Your task to perform on an android device: empty trash in the gmail app Image 0: 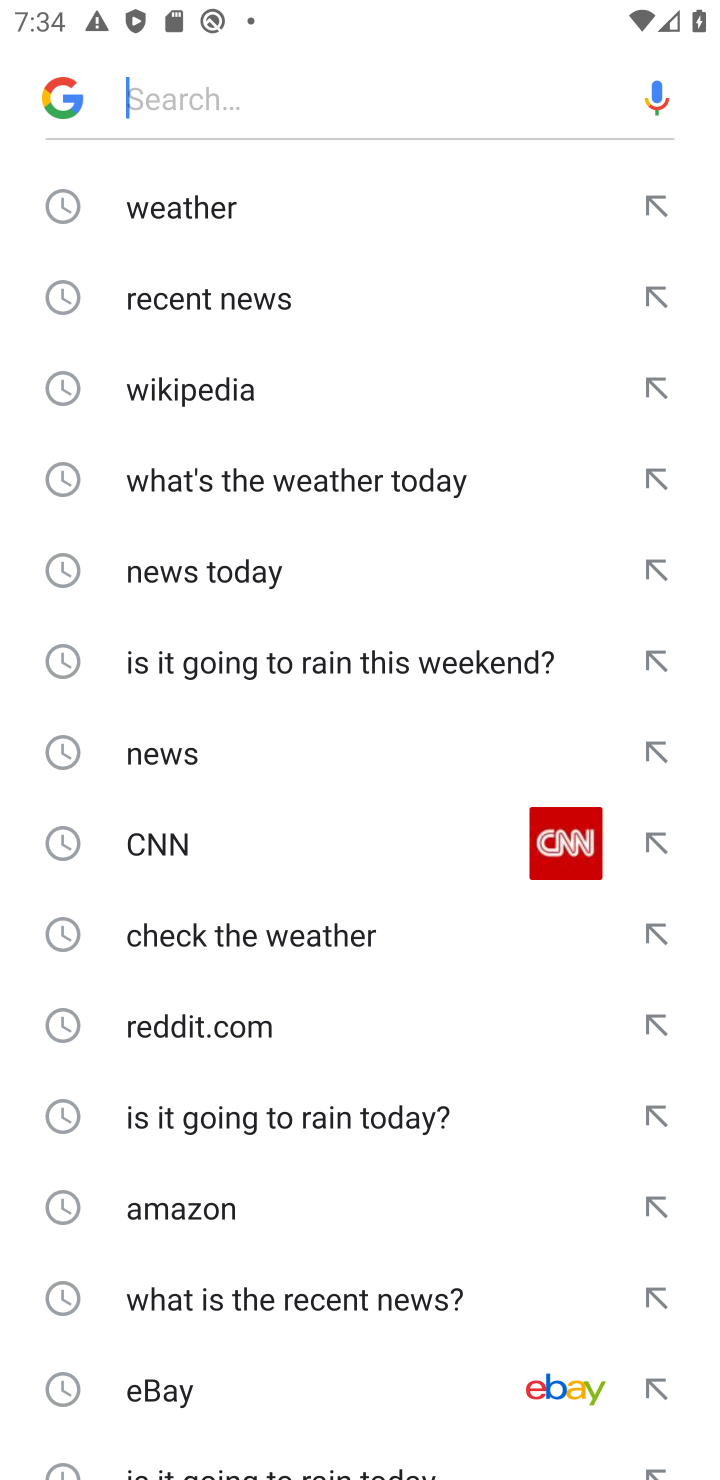
Step 0: press home button
Your task to perform on an android device: empty trash in the gmail app Image 1: 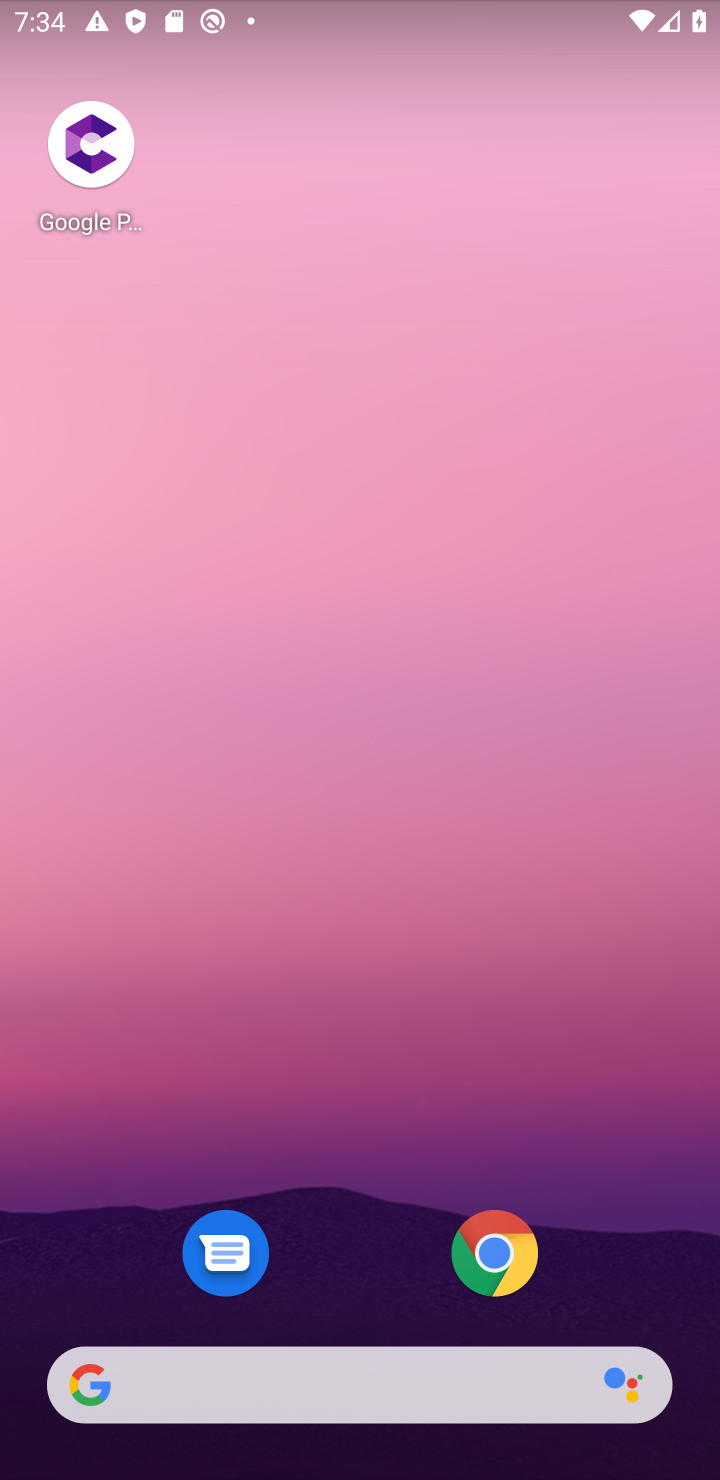
Step 1: drag from (346, 1375) to (513, 235)
Your task to perform on an android device: empty trash in the gmail app Image 2: 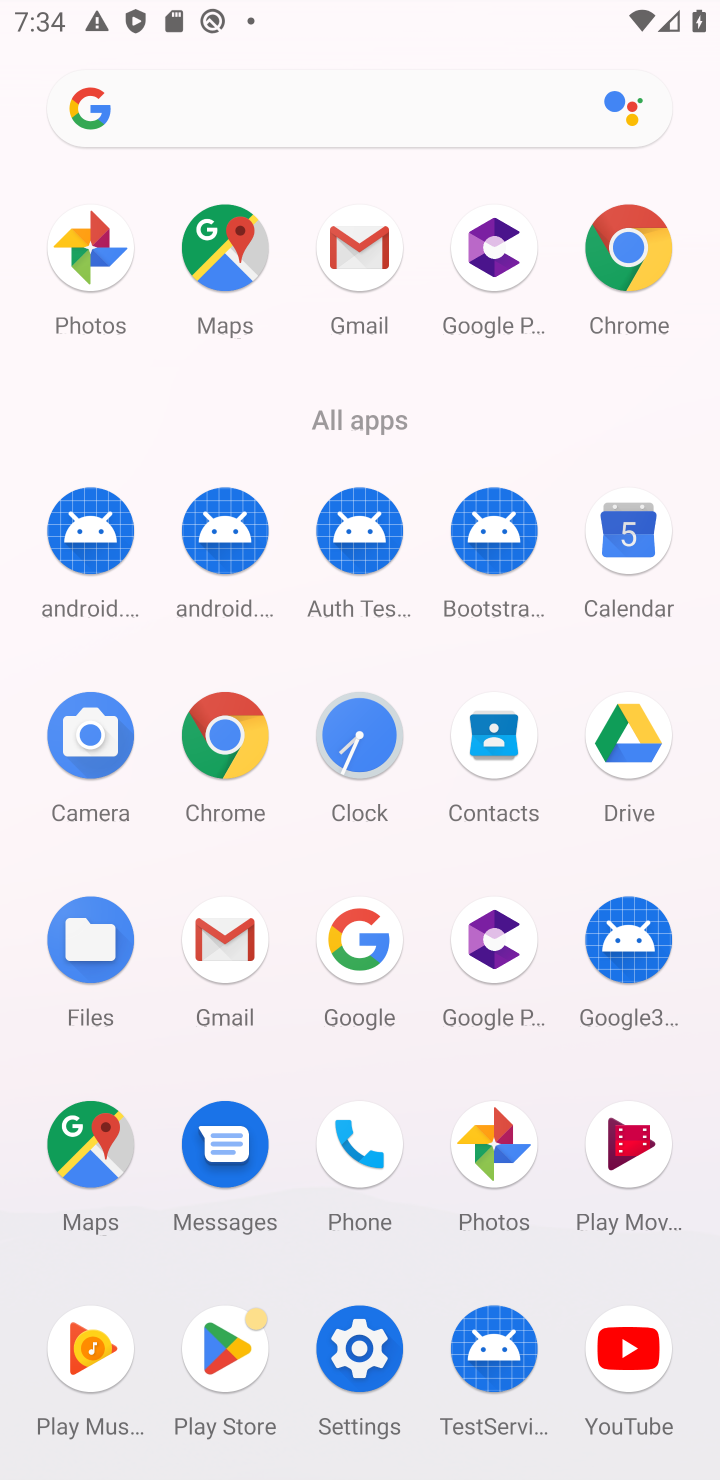
Step 2: click (371, 251)
Your task to perform on an android device: empty trash in the gmail app Image 3: 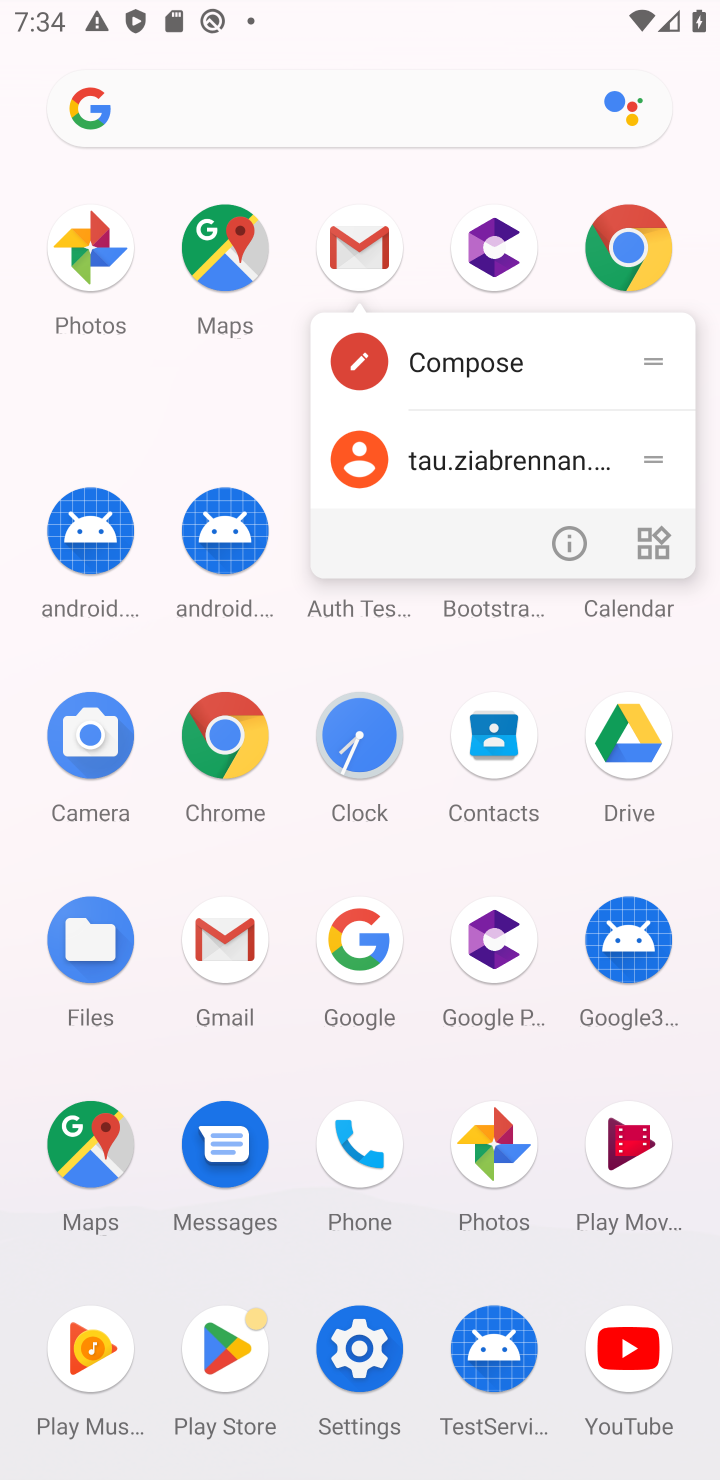
Step 3: click (360, 248)
Your task to perform on an android device: empty trash in the gmail app Image 4: 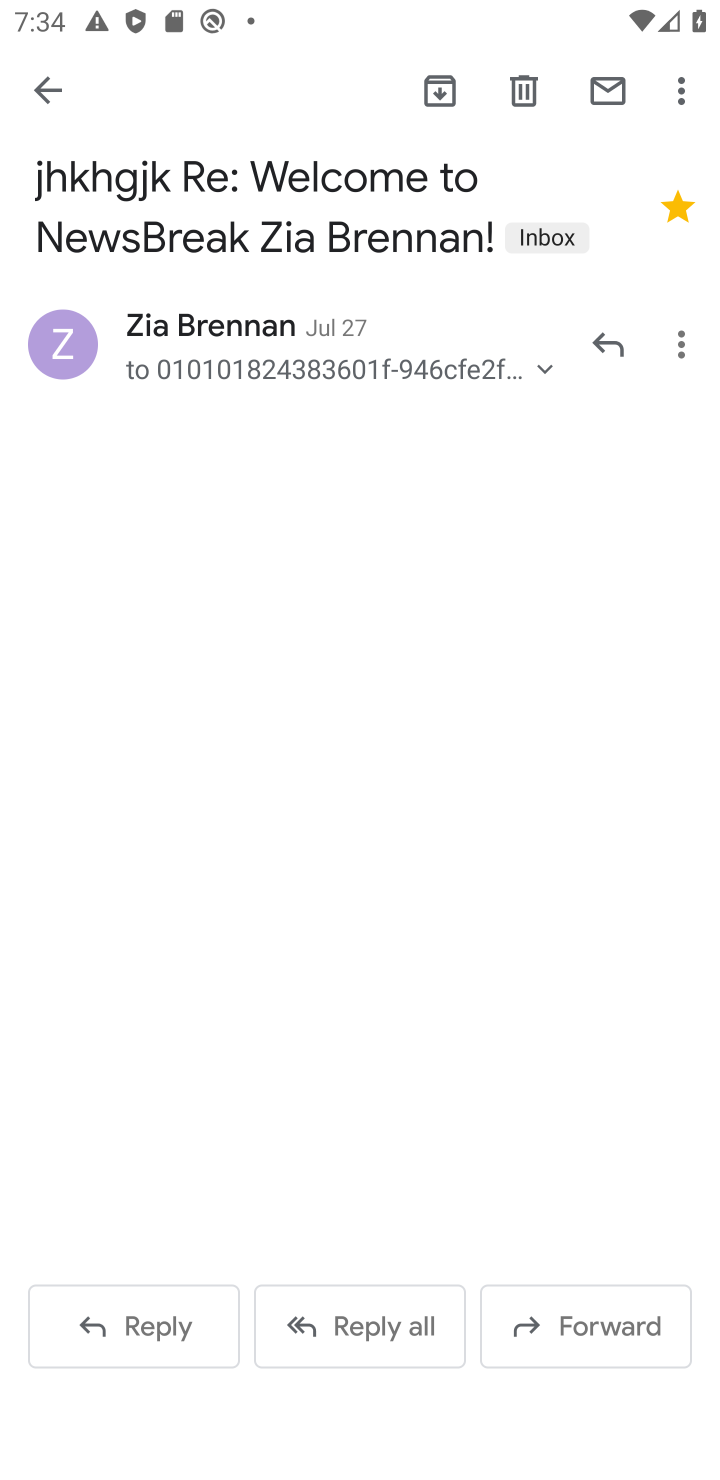
Step 4: click (53, 86)
Your task to perform on an android device: empty trash in the gmail app Image 5: 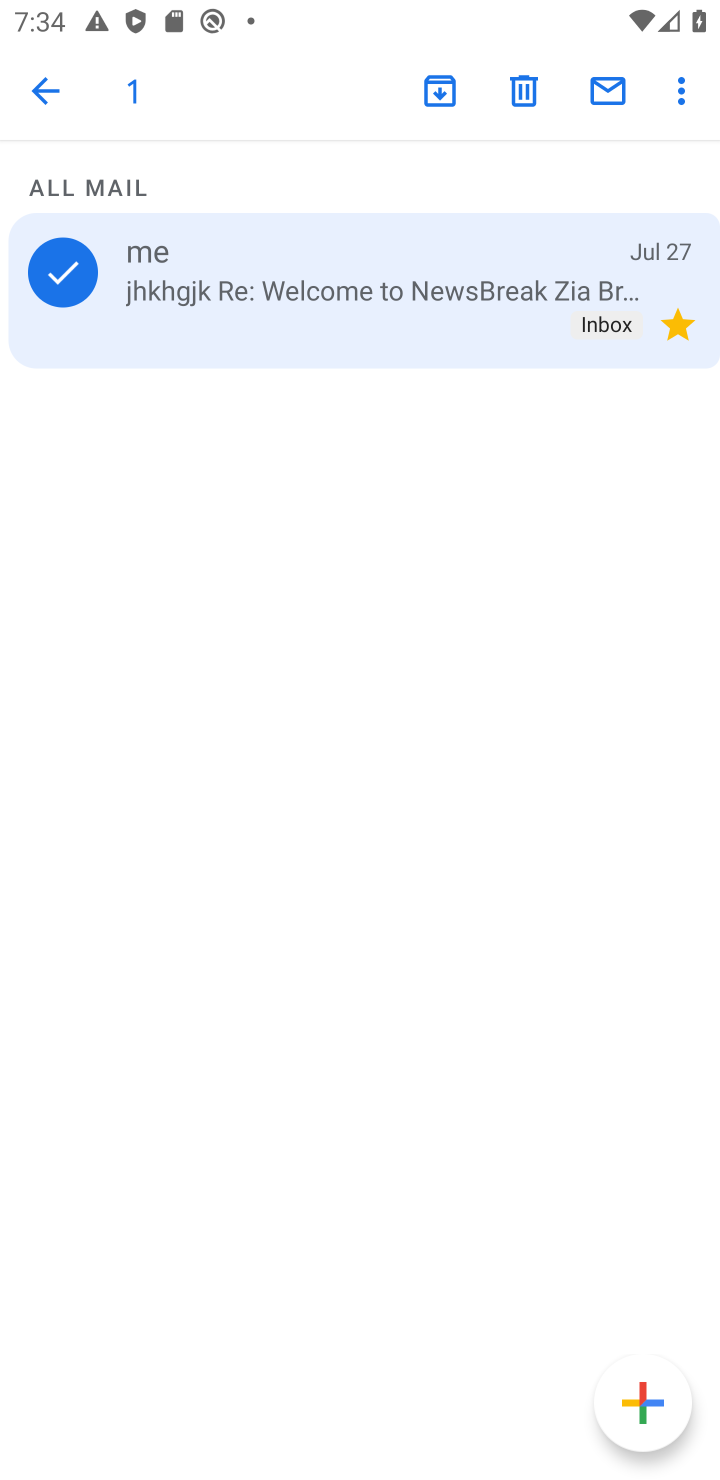
Step 5: click (77, 275)
Your task to perform on an android device: empty trash in the gmail app Image 6: 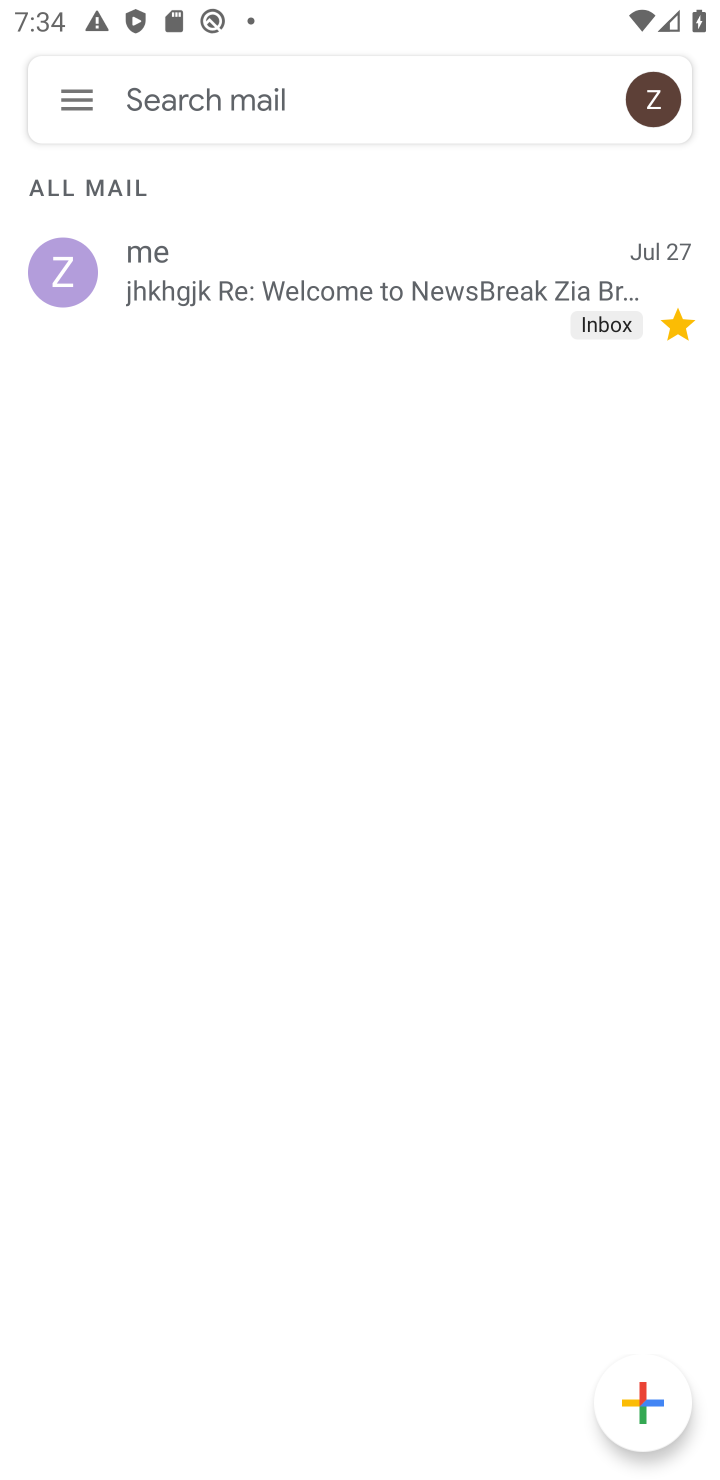
Step 6: click (77, 94)
Your task to perform on an android device: empty trash in the gmail app Image 7: 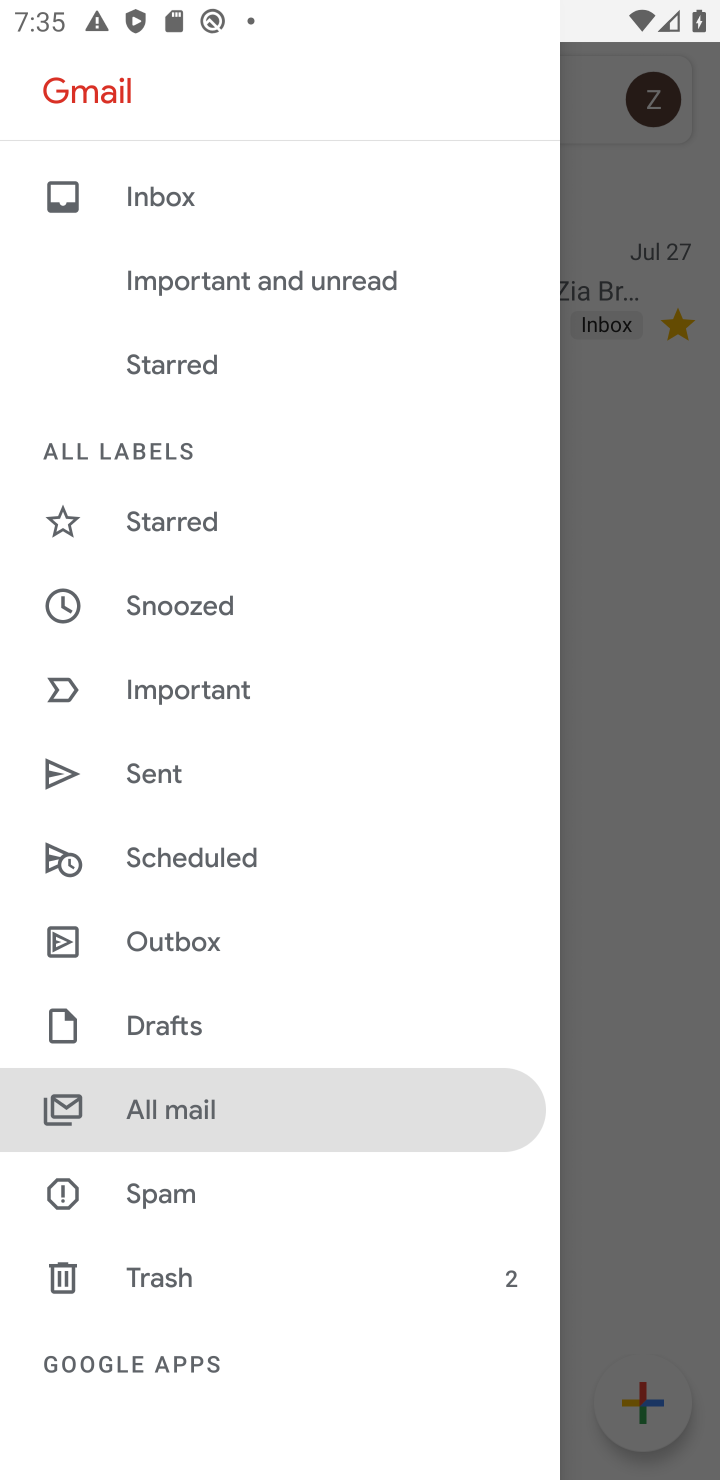
Step 7: click (142, 1275)
Your task to perform on an android device: empty trash in the gmail app Image 8: 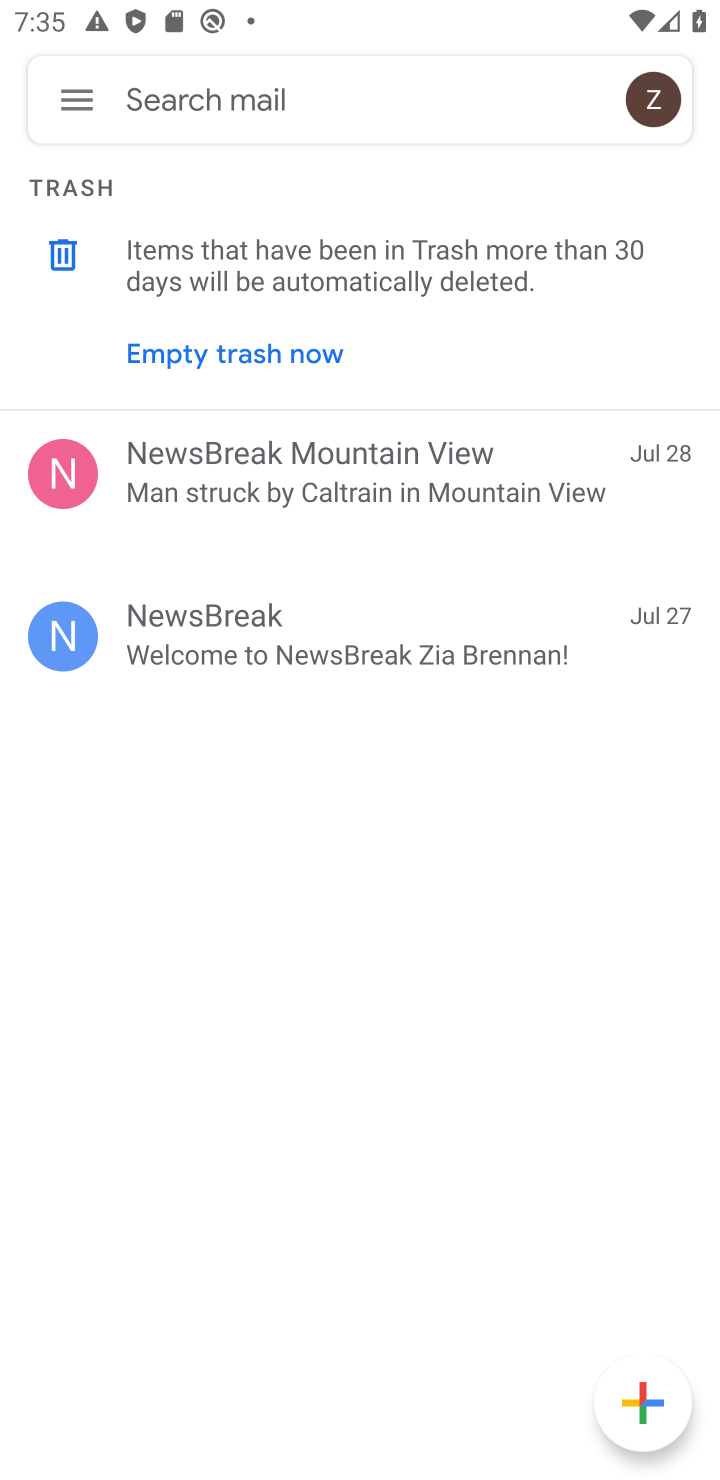
Step 8: click (201, 338)
Your task to perform on an android device: empty trash in the gmail app Image 9: 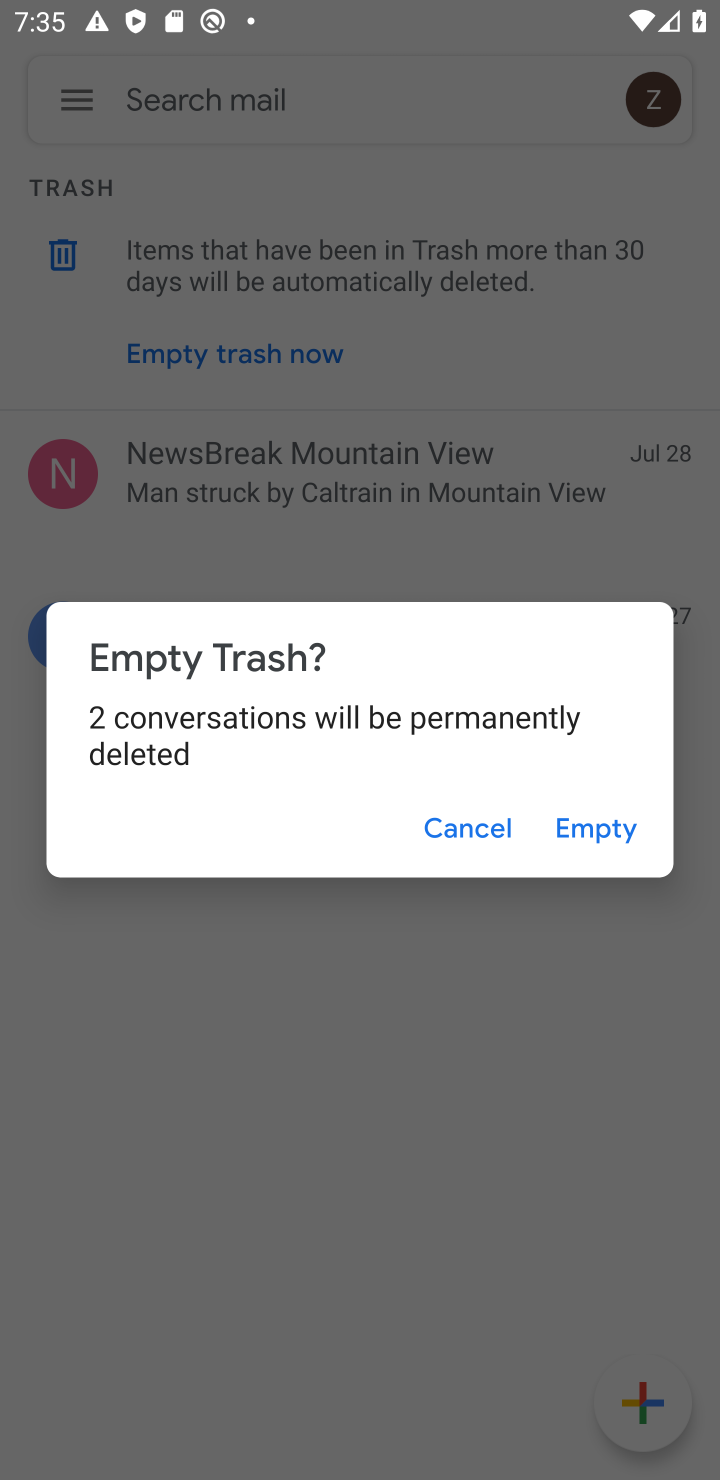
Step 9: click (605, 829)
Your task to perform on an android device: empty trash in the gmail app Image 10: 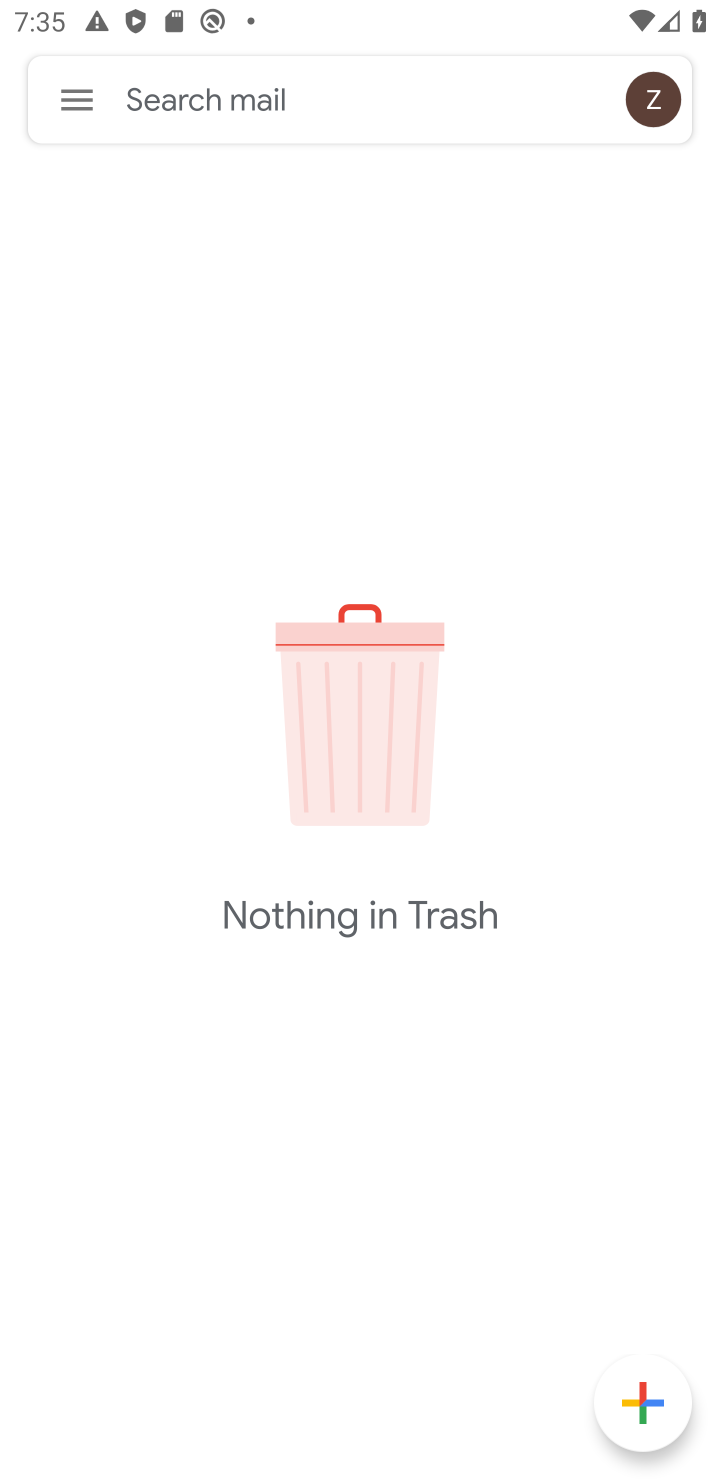
Step 10: task complete